Your task to perform on an android device: turn on airplane mode Image 0: 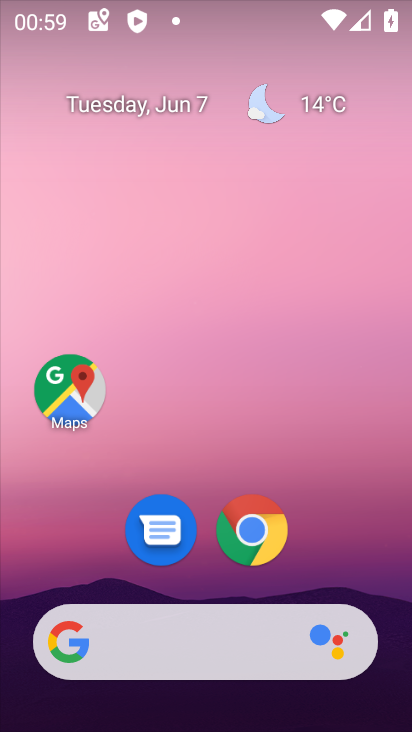
Step 0: drag from (303, 550) to (235, 184)
Your task to perform on an android device: turn on airplane mode Image 1: 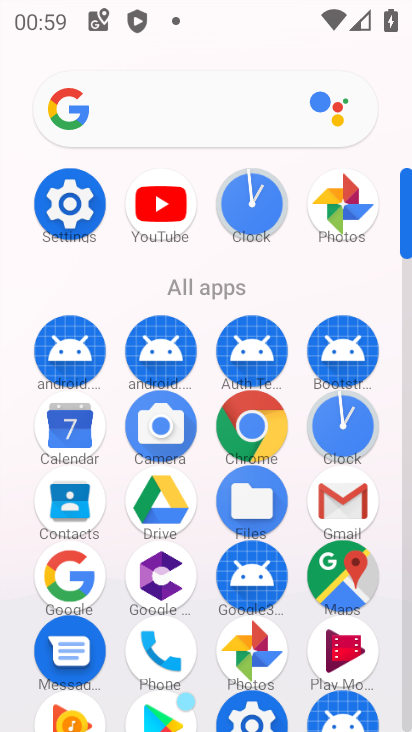
Step 1: click (73, 193)
Your task to perform on an android device: turn on airplane mode Image 2: 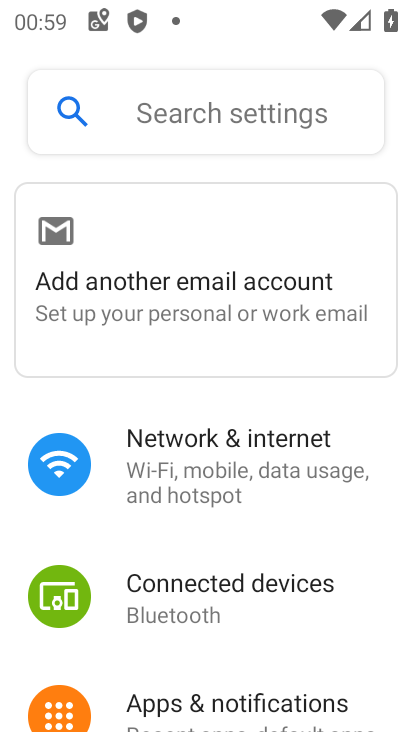
Step 2: click (190, 432)
Your task to perform on an android device: turn on airplane mode Image 3: 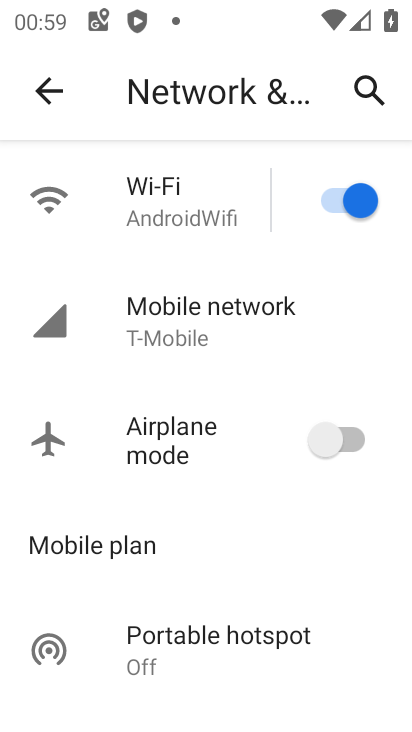
Step 3: click (330, 426)
Your task to perform on an android device: turn on airplane mode Image 4: 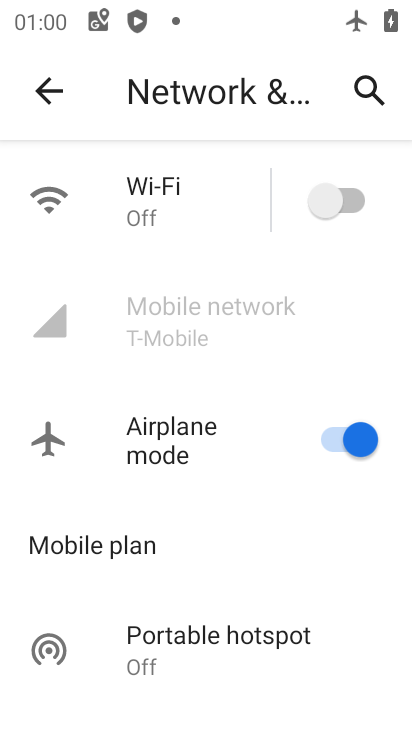
Step 4: task complete